Your task to perform on an android device: visit the assistant section in the google photos Image 0: 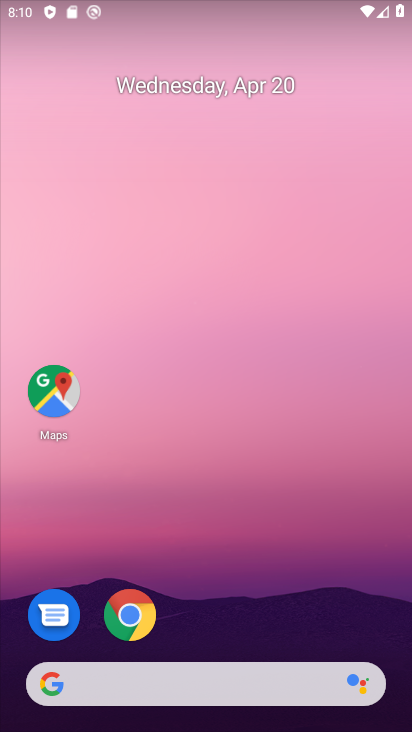
Step 0: drag from (225, 633) to (292, 259)
Your task to perform on an android device: visit the assistant section in the google photos Image 1: 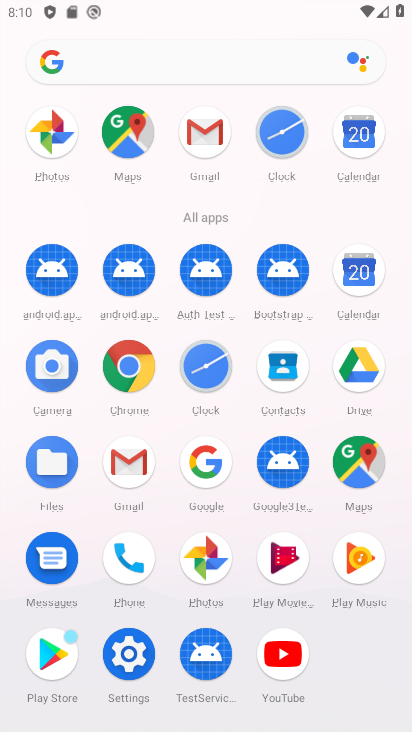
Step 1: click (214, 571)
Your task to perform on an android device: visit the assistant section in the google photos Image 2: 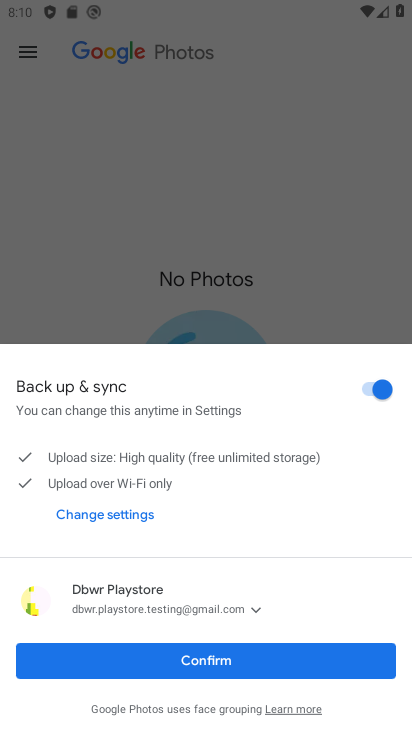
Step 2: click (301, 664)
Your task to perform on an android device: visit the assistant section in the google photos Image 3: 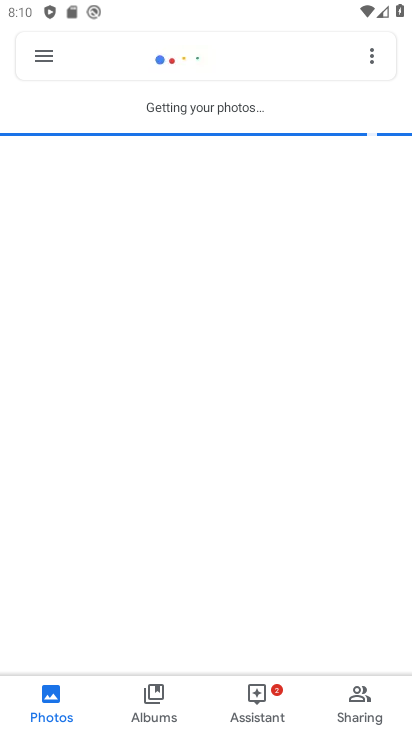
Step 3: click (261, 706)
Your task to perform on an android device: visit the assistant section in the google photos Image 4: 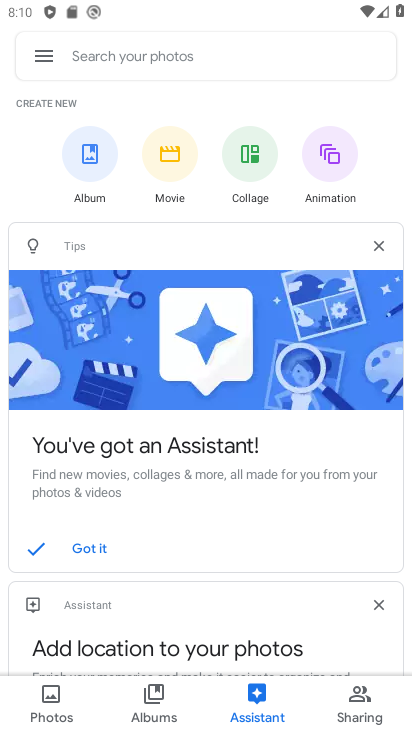
Step 4: task complete